Your task to perform on an android device: turn on wifi Image 0: 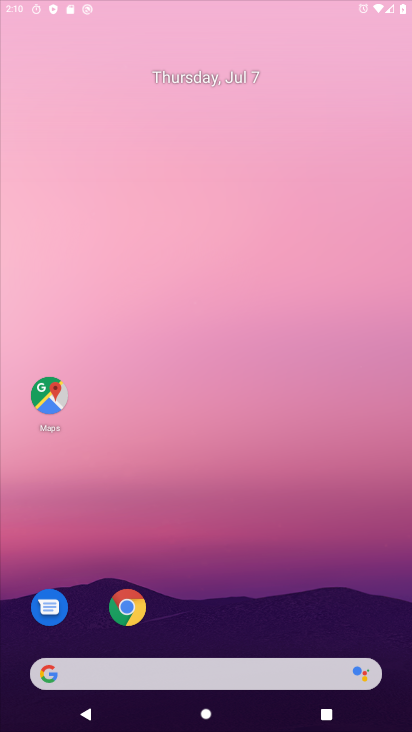
Step 0: press home button
Your task to perform on an android device: turn on wifi Image 1: 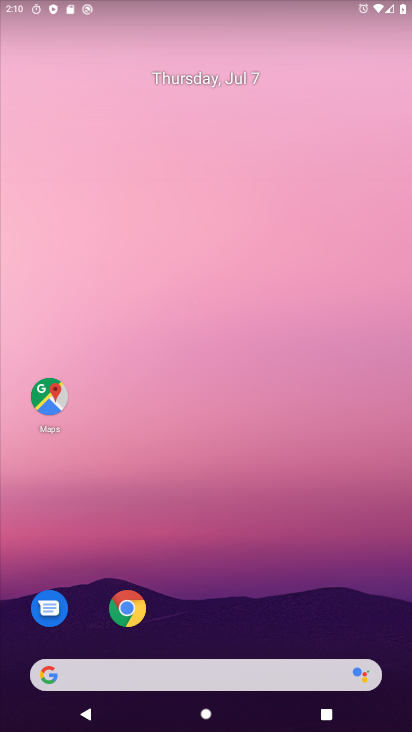
Step 1: drag from (257, 715) to (205, 36)
Your task to perform on an android device: turn on wifi Image 2: 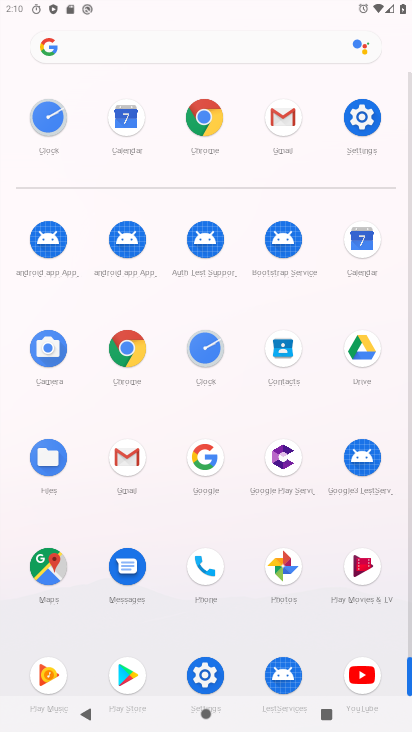
Step 2: click (363, 112)
Your task to perform on an android device: turn on wifi Image 3: 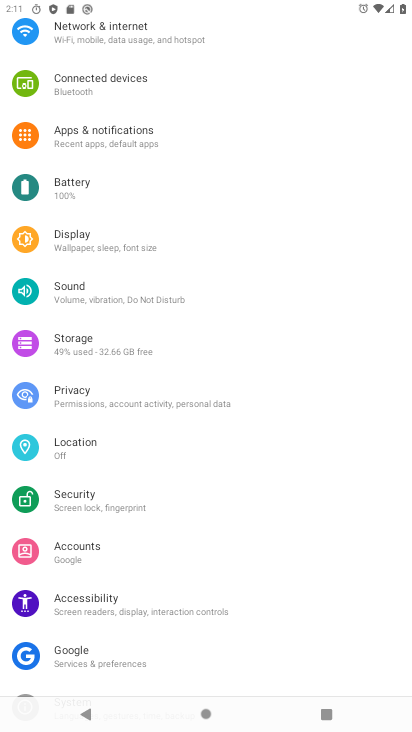
Step 3: click (102, 38)
Your task to perform on an android device: turn on wifi Image 4: 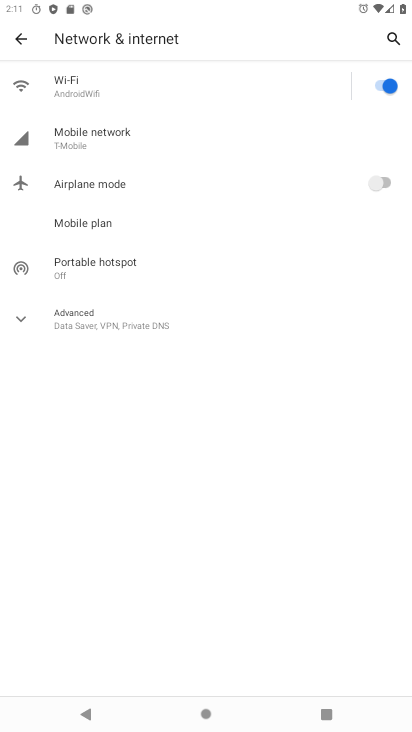
Step 4: task complete